Your task to perform on an android device: toggle airplane mode Image 0: 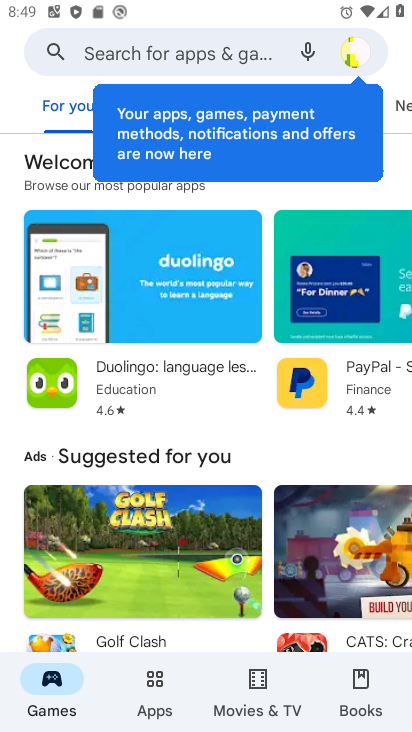
Step 0: press home button
Your task to perform on an android device: toggle airplane mode Image 1: 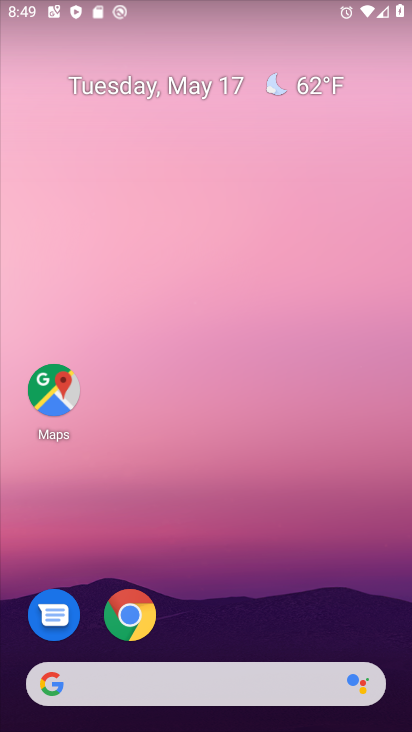
Step 1: drag from (354, 38) to (349, 559)
Your task to perform on an android device: toggle airplane mode Image 2: 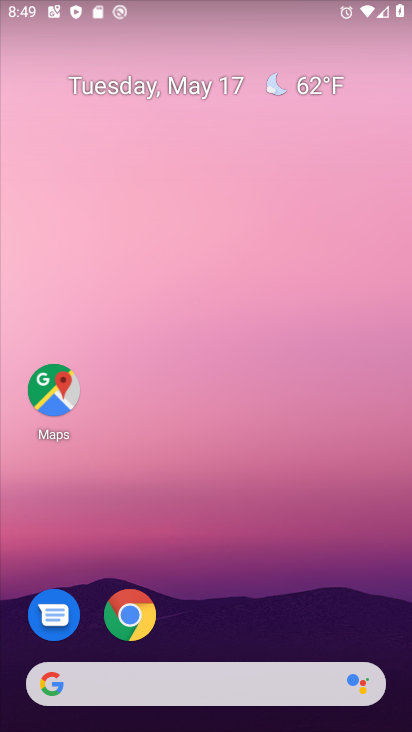
Step 2: drag from (367, 4) to (407, 255)
Your task to perform on an android device: toggle airplane mode Image 3: 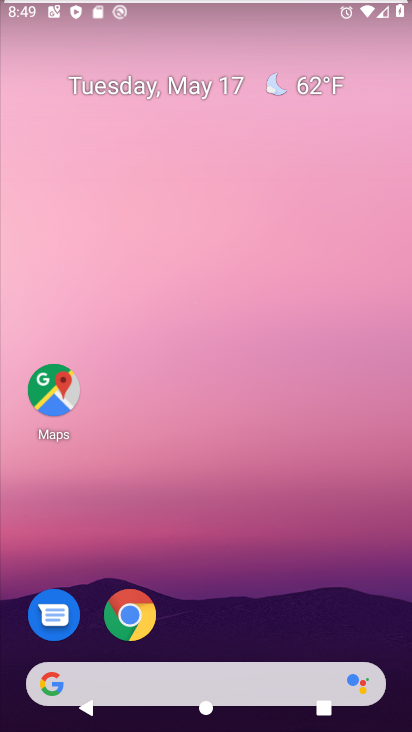
Step 3: click (374, 123)
Your task to perform on an android device: toggle airplane mode Image 4: 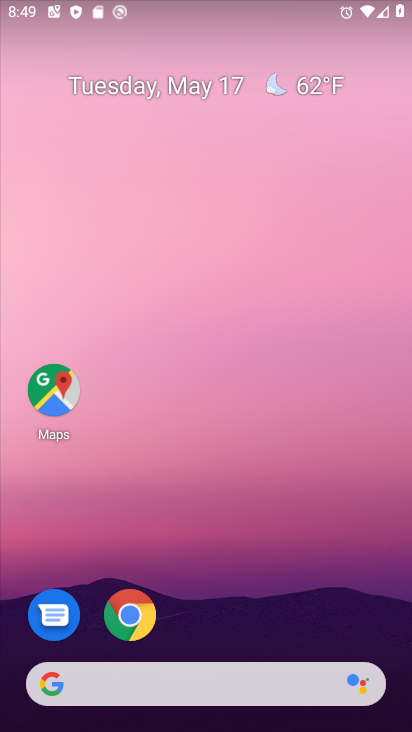
Step 4: drag from (371, 1) to (402, 514)
Your task to perform on an android device: toggle airplane mode Image 5: 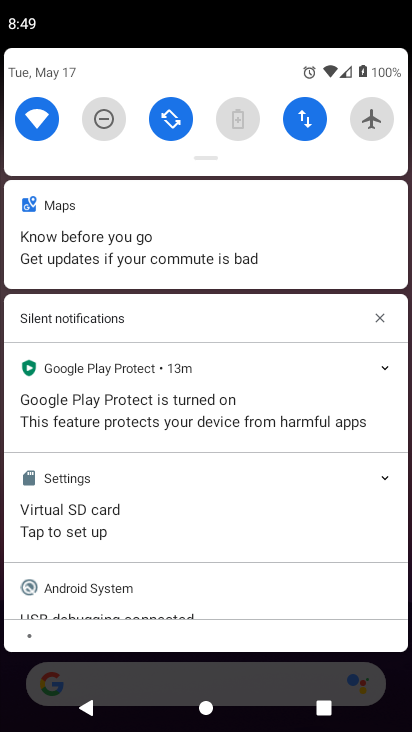
Step 5: click (384, 124)
Your task to perform on an android device: toggle airplane mode Image 6: 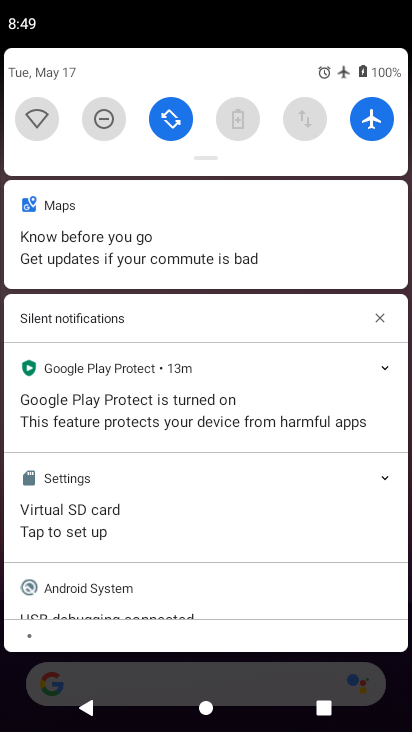
Step 6: task complete